Your task to perform on an android device: Open Google Maps Image 0: 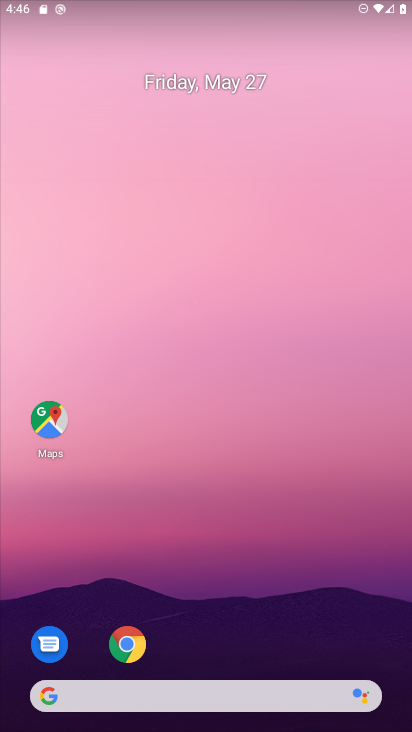
Step 0: click (32, 427)
Your task to perform on an android device: Open Google Maps Image 1: 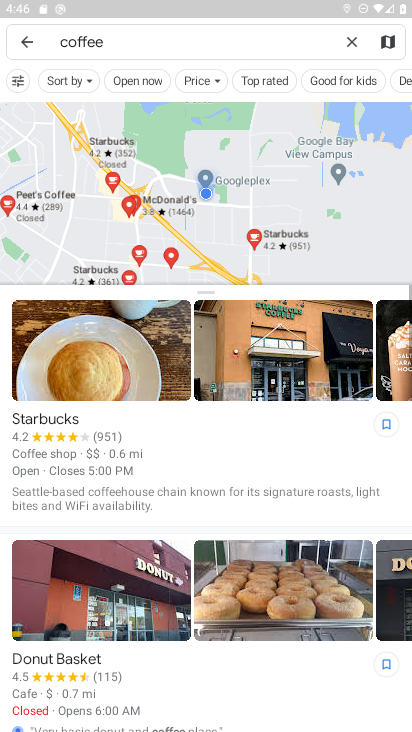
Step 1: task complete